Your task to perform on an android device: Go to Android settings Image 0: 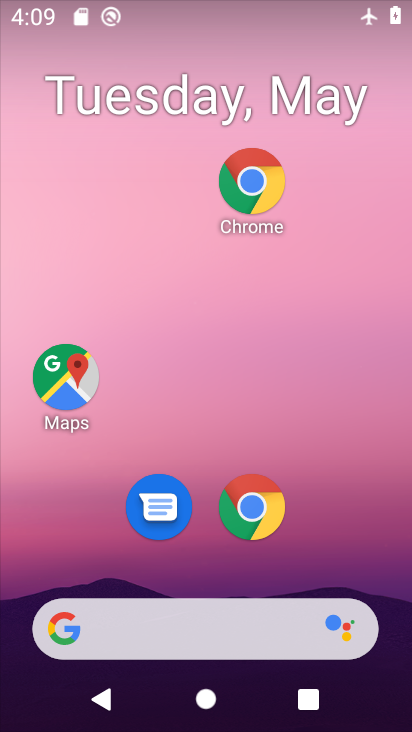
Step 0: drag from (344, 426) to (276, 82)
Your task to perform on an android device: Go to Android settings Image 1: 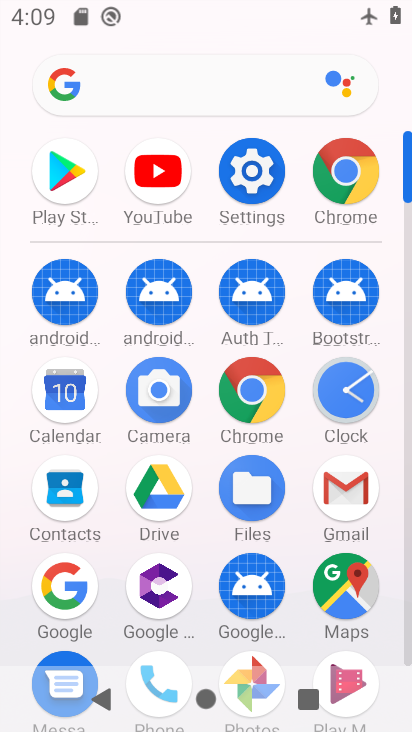
Step 1: click (259, 208)
Your task to perform on an android device: Go to Android settings Image 2: 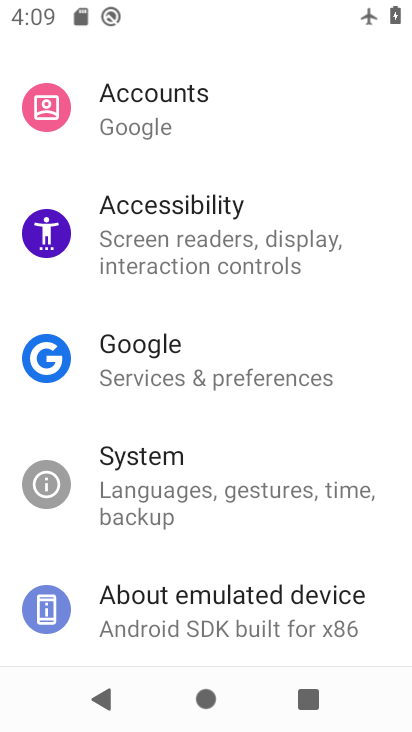
Step 2: drag from (257, 609) to (223, 240)
Your task to perform on an android device: Go to Android settings Image 3: 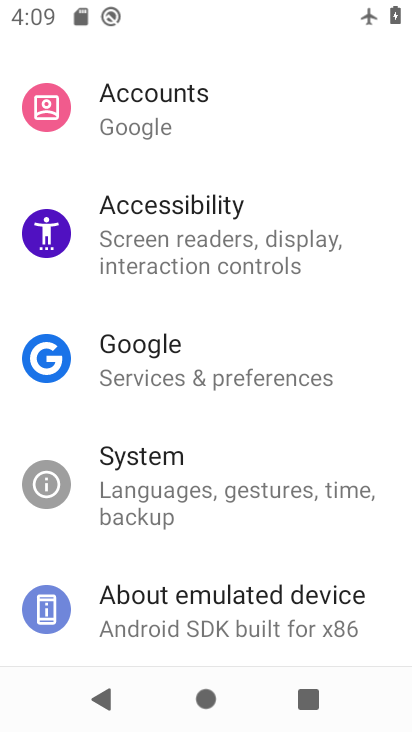
Step 3: click (183, 621)
Your task to perform on an android device: Go to Android settings Image 4: 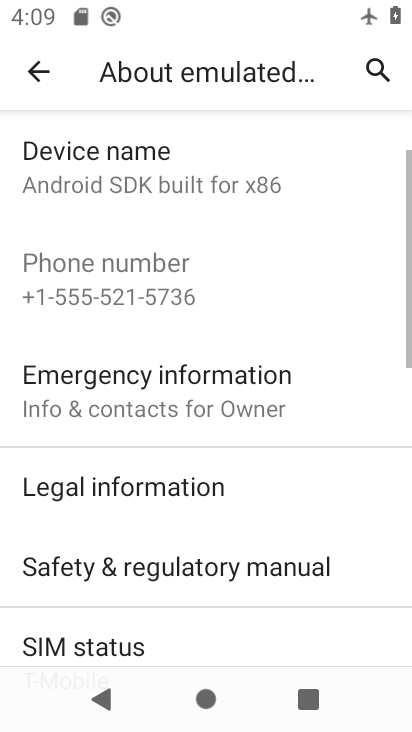
Step 4: task complete